Your task to perform on an android device: Open Youtube and go to the subscriptions tab Image 0: 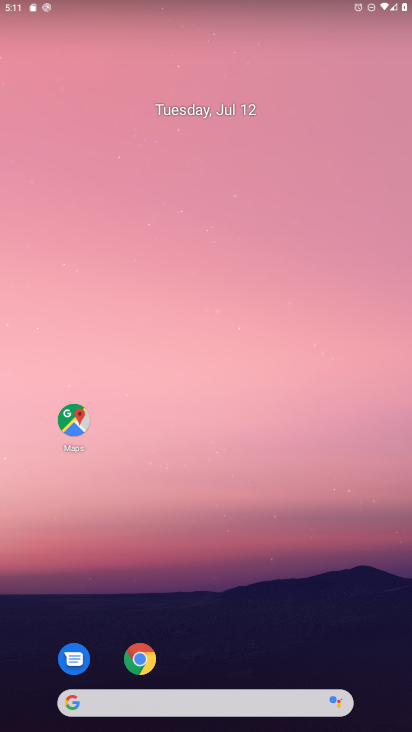
Step 0: drag from (240, 541) to (241, 84)
Your task to perform on an android device: Open Youtube and go to the subscriptions tab Image 1: 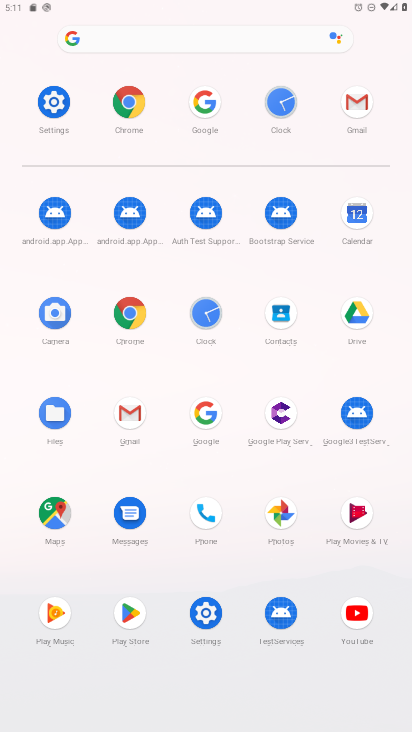
Step 1: click (345, 623)
Your task to perform on an android device: Open Youtube and go to the subscriptions tab Image 2: 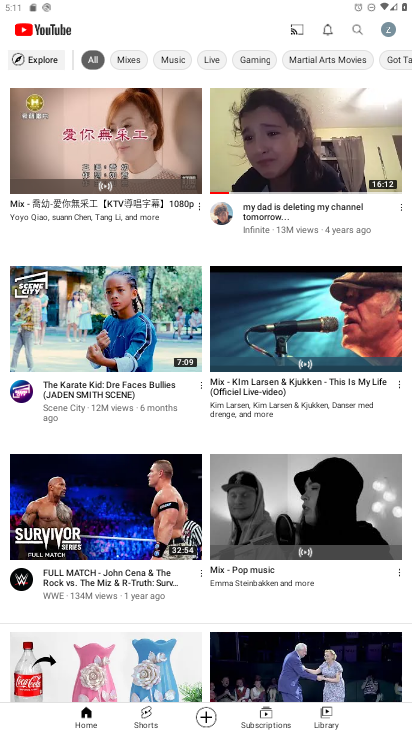
Step 2: click (260, 717)
Your task to perform on an android device: Open Youtube and go to the subscriptions tab Image 3: 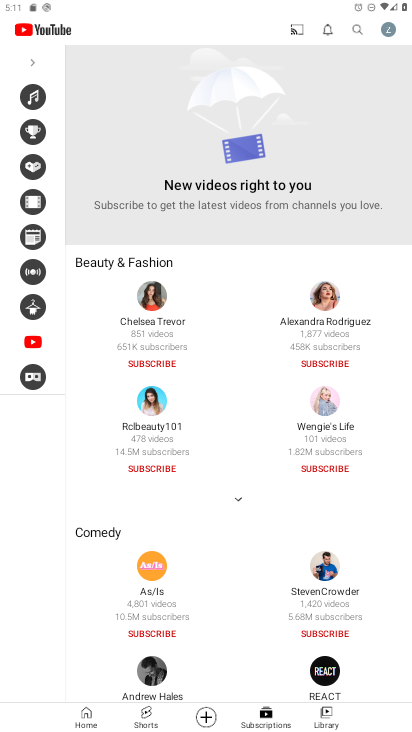
Step 3: task complete